Your task to perform on an android device: Go to Google Image 0: 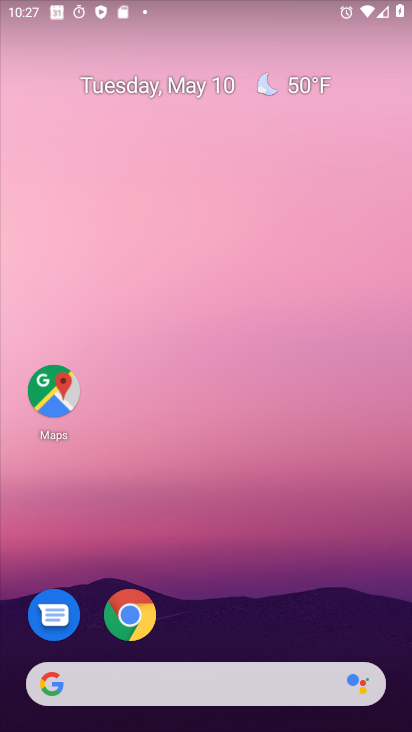
Step 0: drag from (215, 633) to (223, 148)
Your task to perform on an android device: Go to Google Image 1: 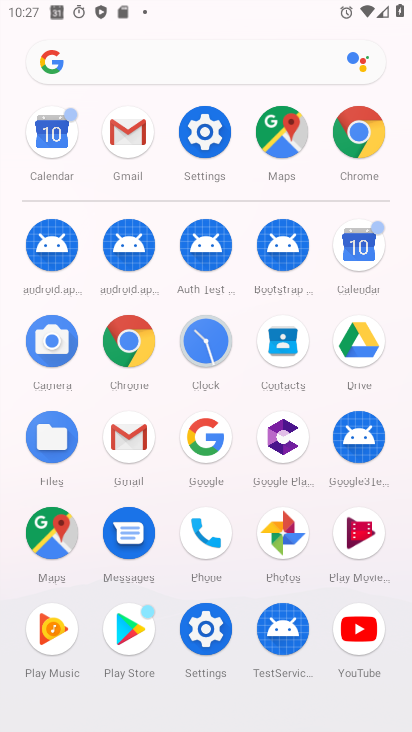
Step 1: click (203, 430)
Your task to perform on an android device: Go to Google Image 2: 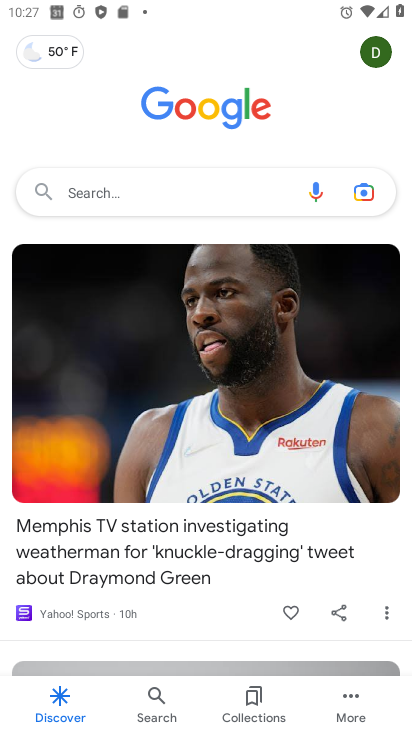
Step 2: task complete